Your task to perform on an android device: turn on bluetooth scan Image 0: 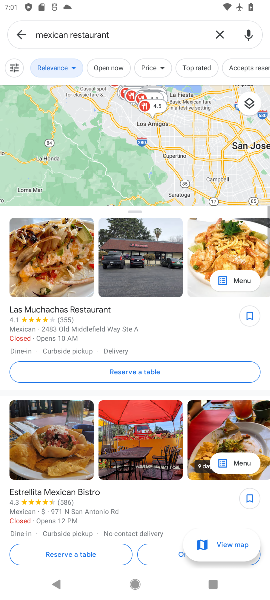
Step 0: press home button
Your task to perform on an android device: turn on bluetooth scan Image 1: 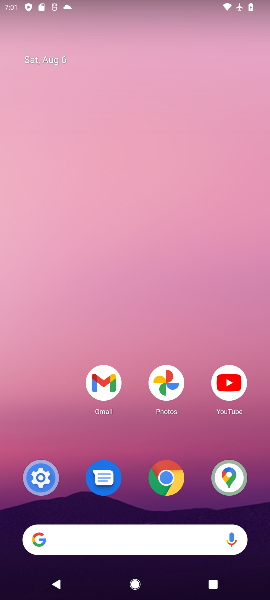
Step 1: drag from (137, 325) to (207, 4)
Your task to perform on an android device: turn on bluetooth scan Image 2: 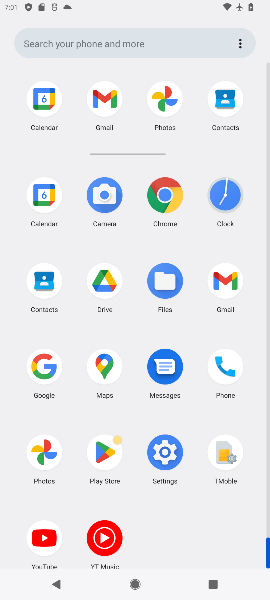
Step 2: click (178, 456)
Your task to perform on an android device: turn on bluetooth scan Image 3: 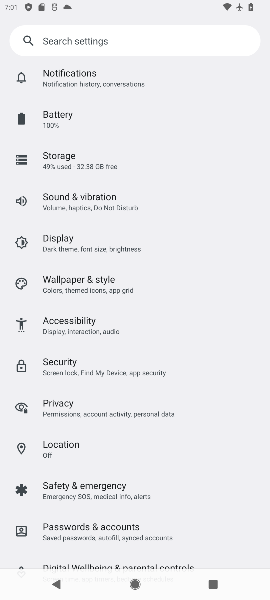
Step 3: click (52, 448)
Your task to perform on an android device: turn on bluetooth scan Image 4: 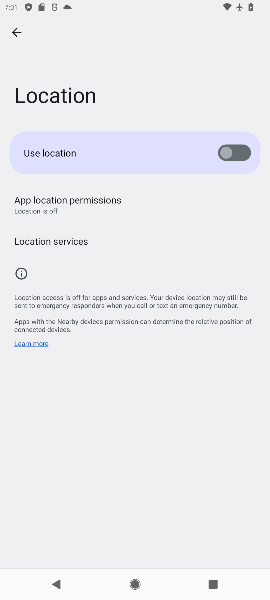
Step 4: click (48, 238)
Your task to perform on an android device: turn on bluetooth scan Image 5: 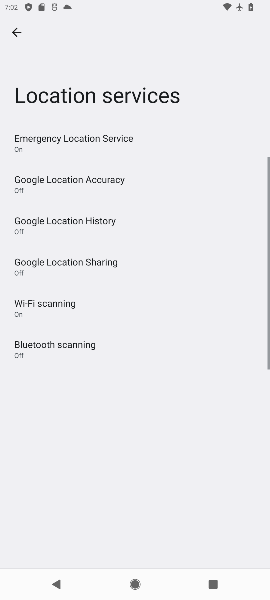
Step 5: click (50, 349)
Your task to perform on an android device: turn on bluetooth scan Image 6: 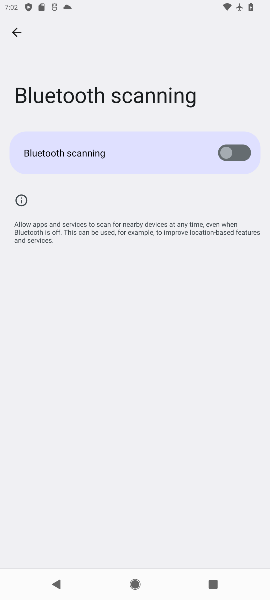
Step 6: click (225, 147)
Your task to perform on an android device: turn on bluetooth scan Image 7: 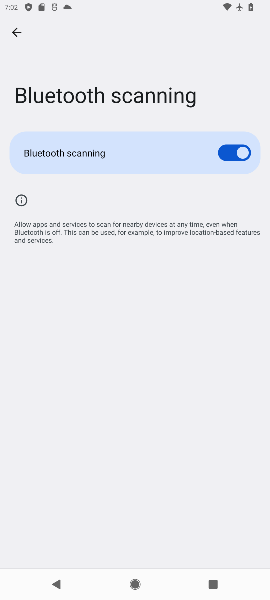
Step 7: task complete